Your task to perform on an android device: Open notification settings Image 0: 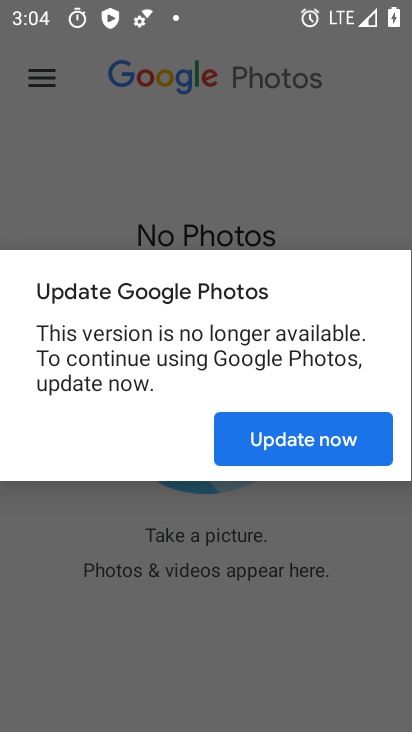
Step 0: press home button
Your task to perform on an android device: Open notification settings Image 1: 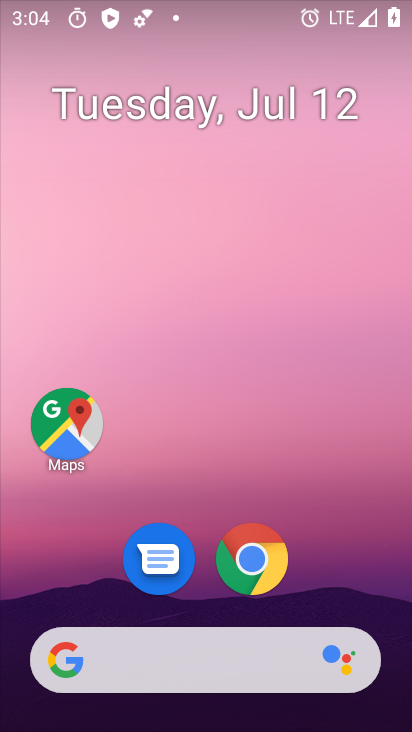
Step 1: drag from (373, 567) to (384, 217)
Your task to perform on an android device: Open notification settings Image 2: 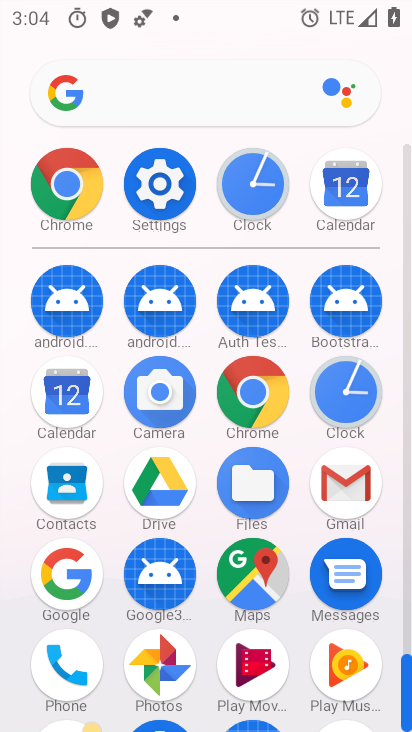
Step 2: click (183, 185)
Your task to perform on an android device: Open notification settings Image 3: 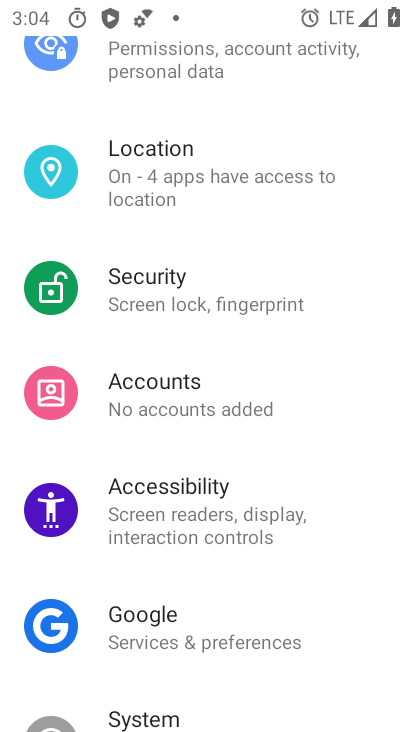
Step 3: drag from (377, 251) to (377, 302)
Your task to perform on an android device: Open notification settings Image 4: 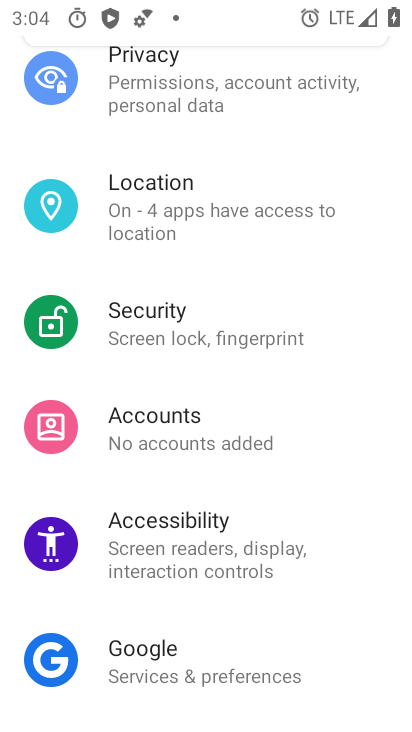
Step 4: drag from (367, 239) to (366, 305)
Your task to perform on an android device: Open notification settings Image 5: 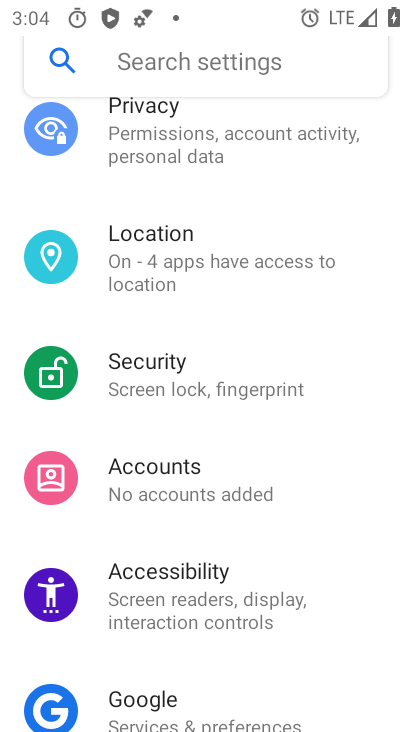
Step 5: drag from (367, 232) to (368, 310)
Your task to perform on an android device: Open notification settings Image 6: 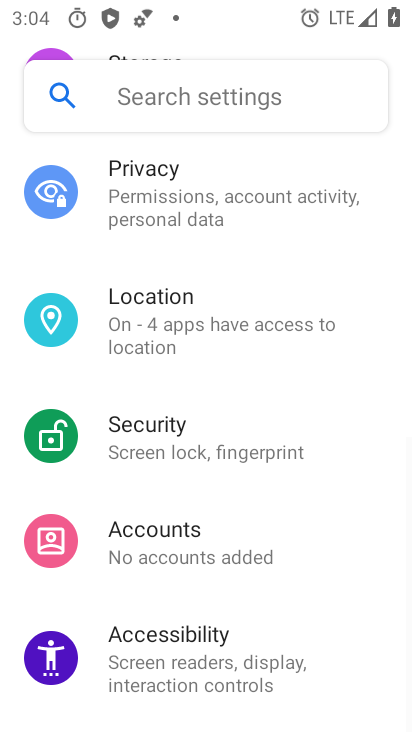
Step 6: drag from (361, 240) to (360, 301)
Your task to perform on an android device: Open notification settings Image 7: 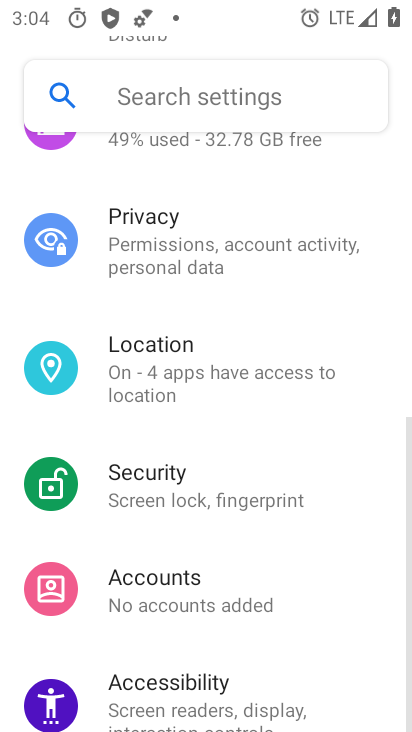
Step 7: drag from (369, 223) to (370, 293)
Your task to perform on an android device: Open notification settings Image 8: 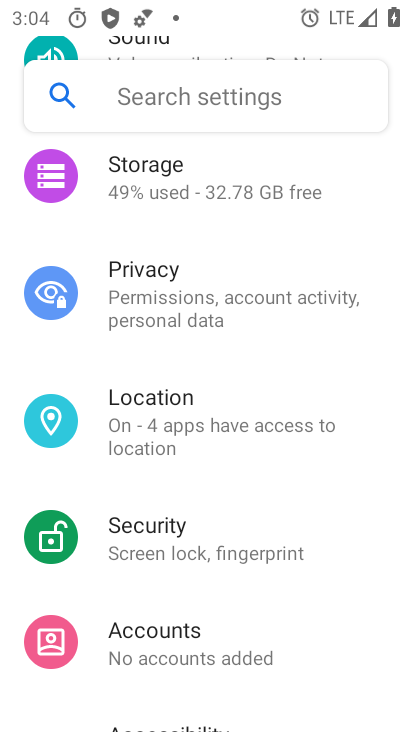
Step 8: drag from (378, 259) to (382, 325)
Your task to perform on an android device: Open notification settings Image 9: 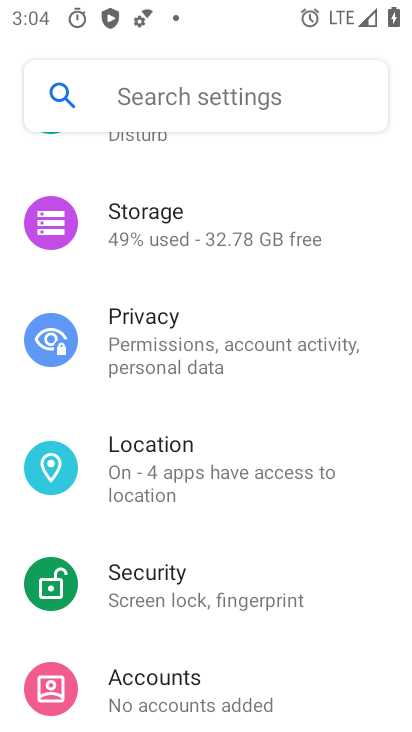
Step 9: drag from (384, 267) to (390, 356)
Your task to perform on an android device: Open notification settings Image 10: 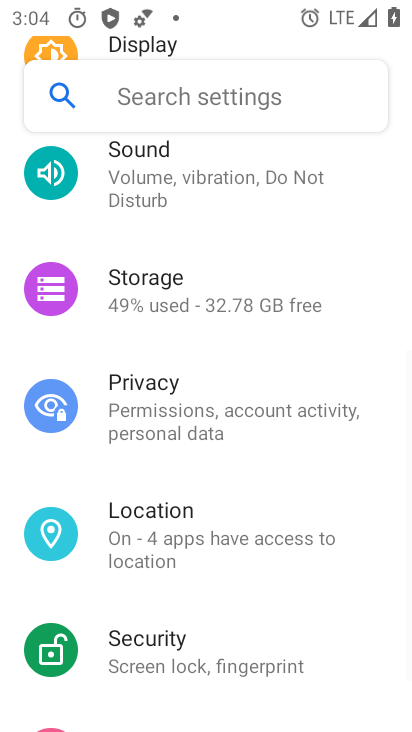
Step 10: drag from (375, 270) to (378, 365)
Your task to perform on an android device: Open notification settings Image 11: 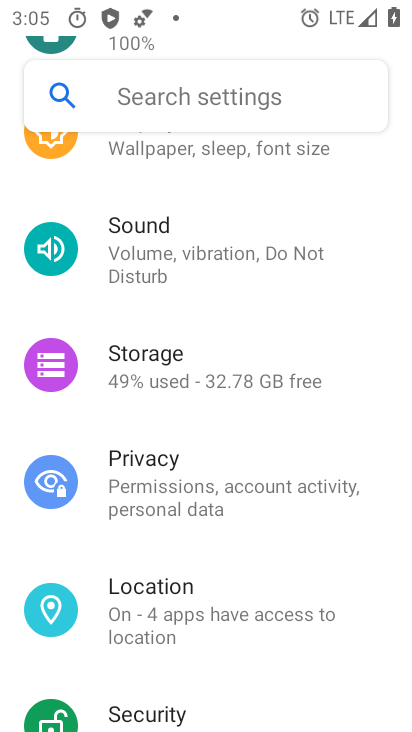
Step 11: drag from (370, 287) to (382, 400)
Your task to perform on an android device: Open notification settings Image 12: 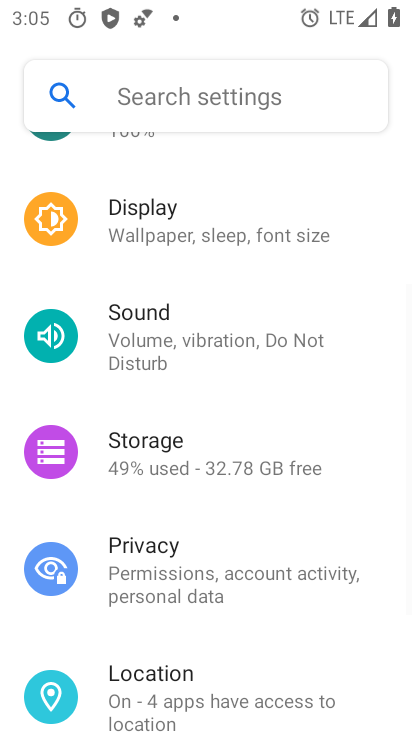
Step 12: drag from (345, 271) to (341, 405)
Your task to perform on an android device: Open notification settings Image 13: 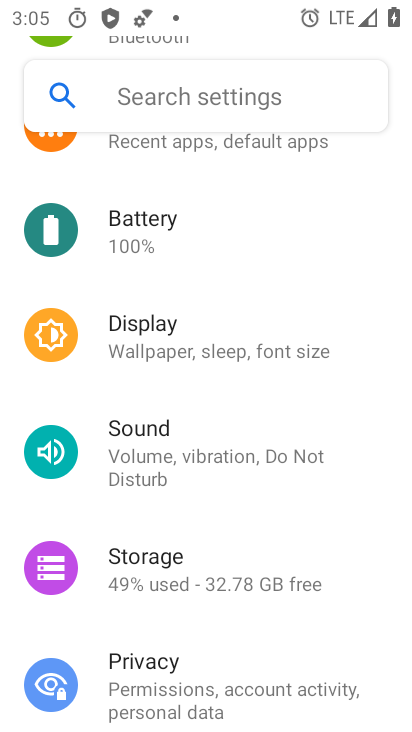
Step 13: drag from (348, 290) to (352, 411)
Your task to perform on an android device: Open notification settings Image 14: 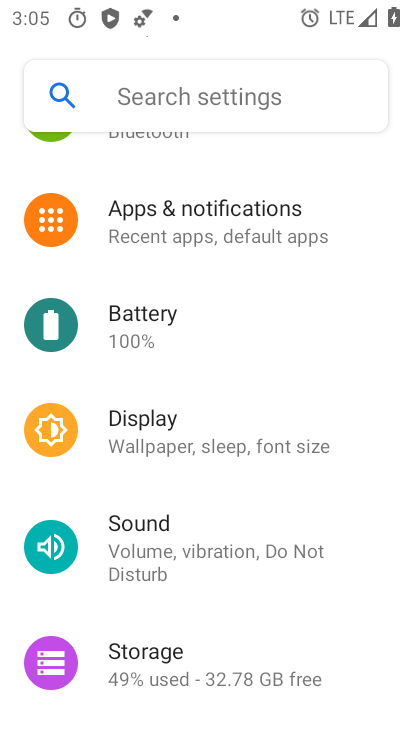
Step 14: drag from (353, 271) to (351, 399)
Your task to perform on an android device: Open notification settings Image 15: 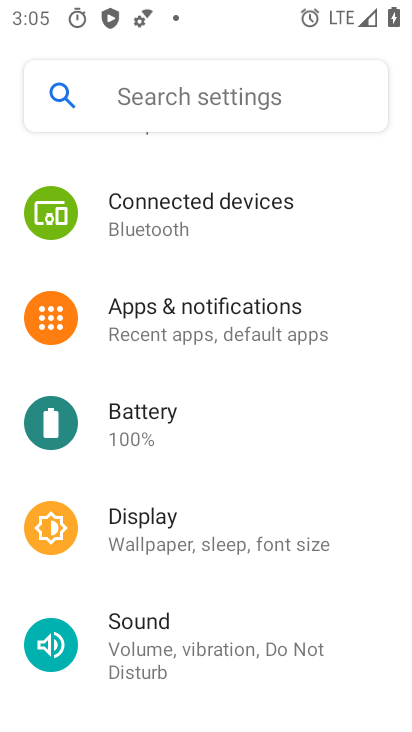
Step 15: click (295, 343)
Your task to perform on an android device: Open notification settings Image 16: 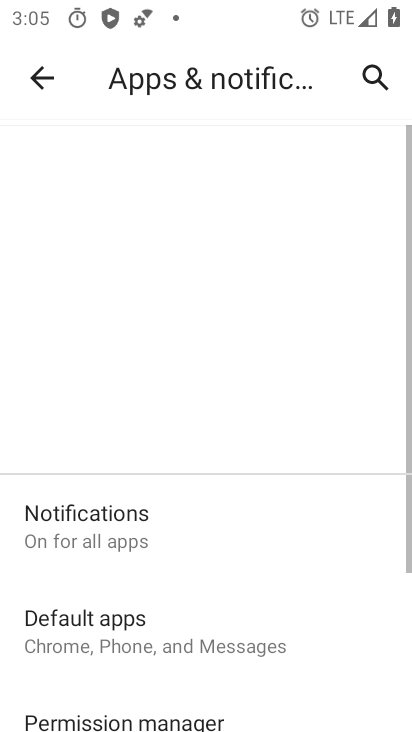
Step 16: drag from (296, 535) to (291, 426)
Your task to perform on an android device: Open notification settings Image 17: 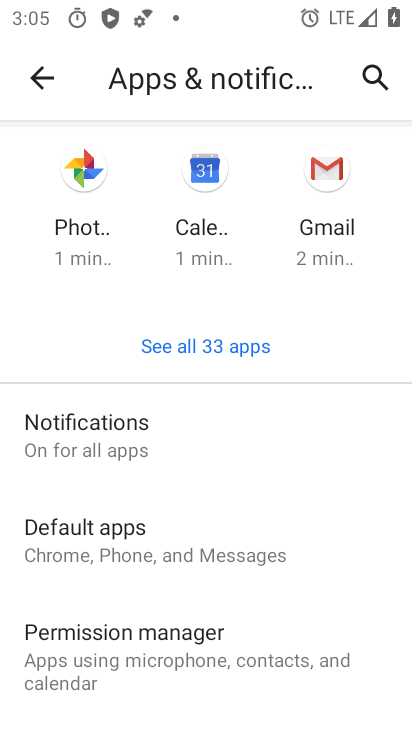
Step 17: drag from (307, 553) to (316, 452)
Your task to perform on an android device: Open notification settings Image 18: 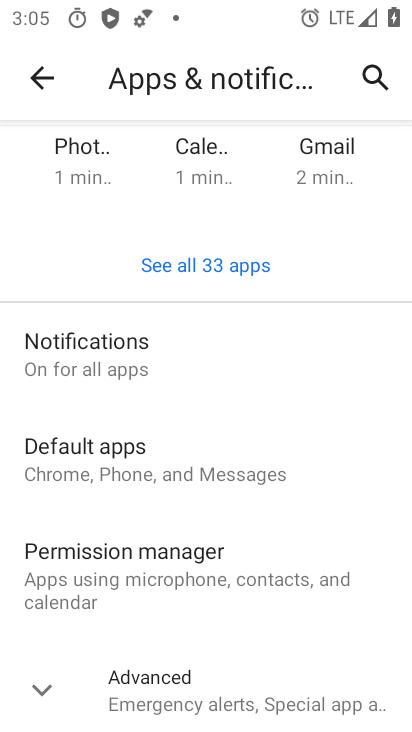
Step 18: drag from (329, 543) to (332, 412)
Your task to perform on an android device: Open notification settings Image 19: 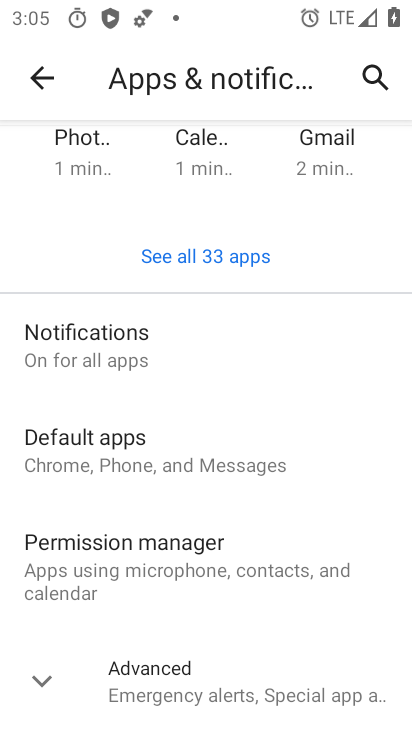
Step 19: click (135, 350)
Your task to perform on an android device: Open notification settings Image 20: 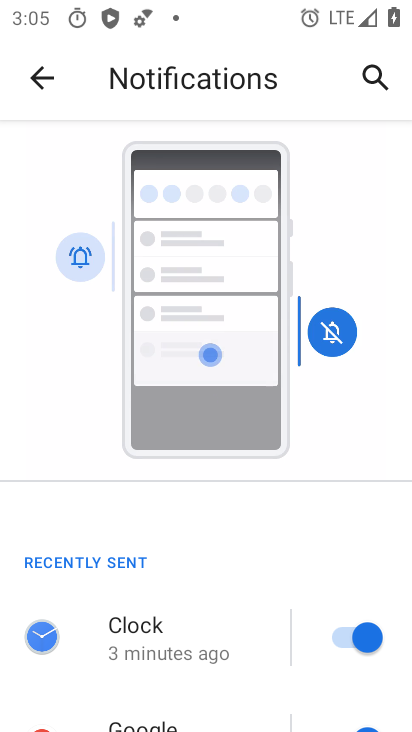
Step 20: task complete